Your task to perform on an android device: toggle notification dots Image 0: 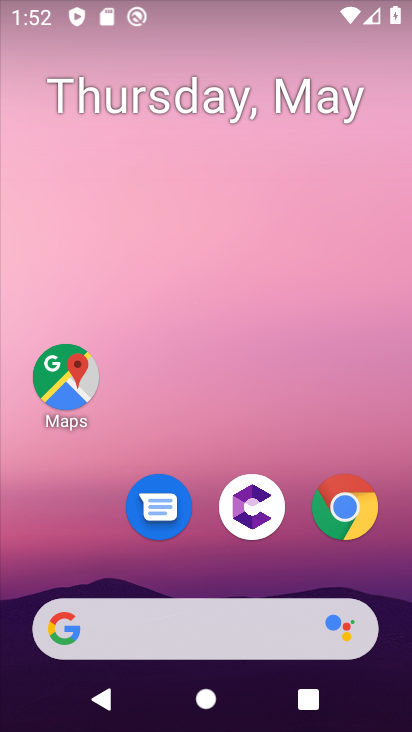
Step 0: press home button
Your task to perform on an android device: toggle notification dots Image 1: 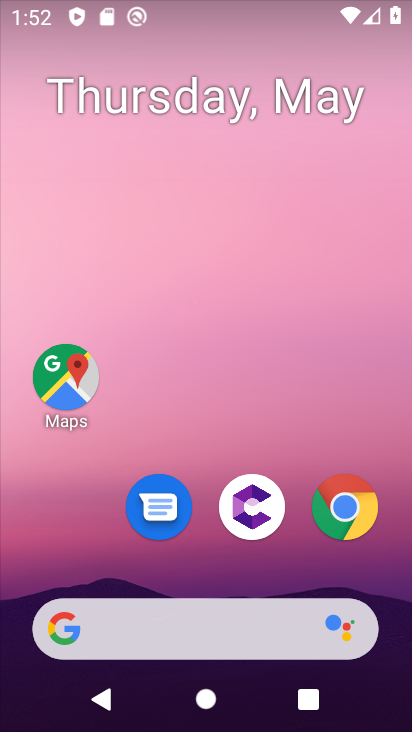
Step 1: drag from (301, 415) to (207, 20)
Your task to perform on an android device: toggle notification dots Image 2: 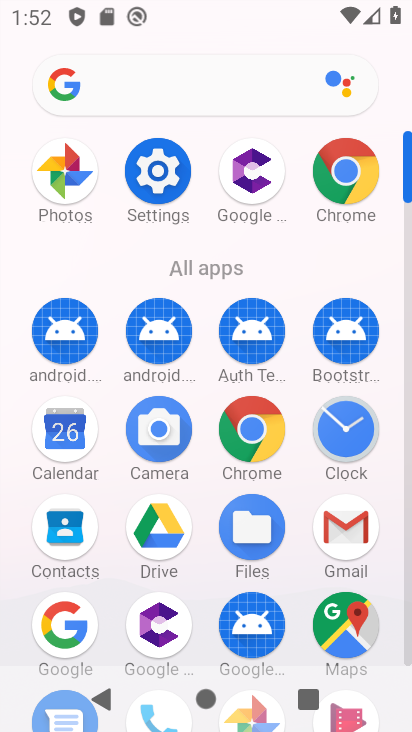
Step 2: click (163, 174)
Your task to perform on an android device: toggle notification dots Image 3: 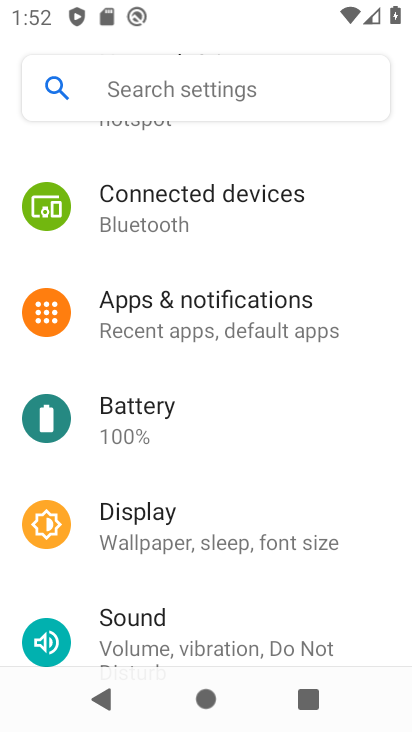
Step 3: click (181, 332)
Your task to perform on an android device: toggle notification dots Image 4: 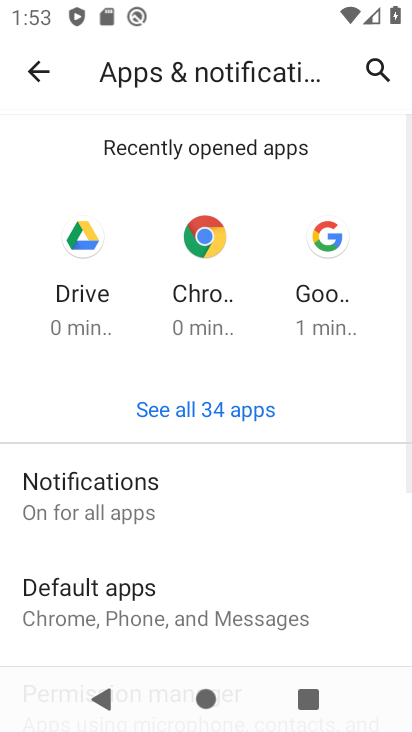
Step 4: drag from (324, 549) to (308, 133)
Your task to perform on an android device: toggle notification dots Image 5: 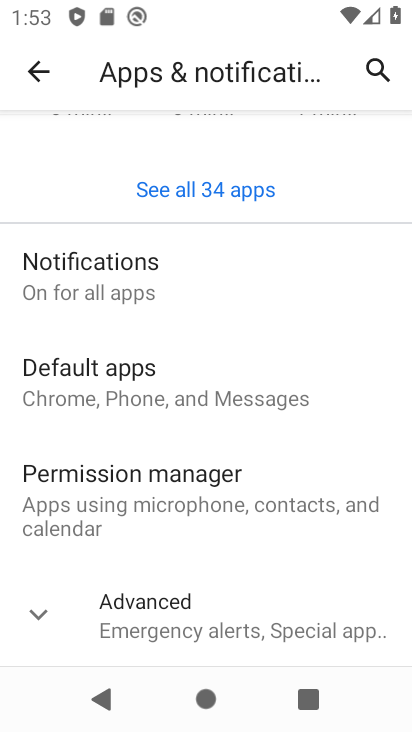
Step 5: click (76, 294)
Your task to perform on an android device: toggle notification dots Image 6: 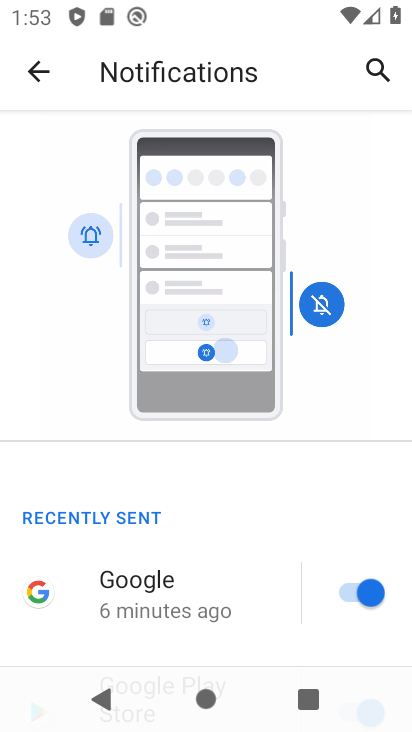
Step 6: drag from (245, 525) to (308, 96)
Your task to perform on an android device: toggle notification dots Image 7: 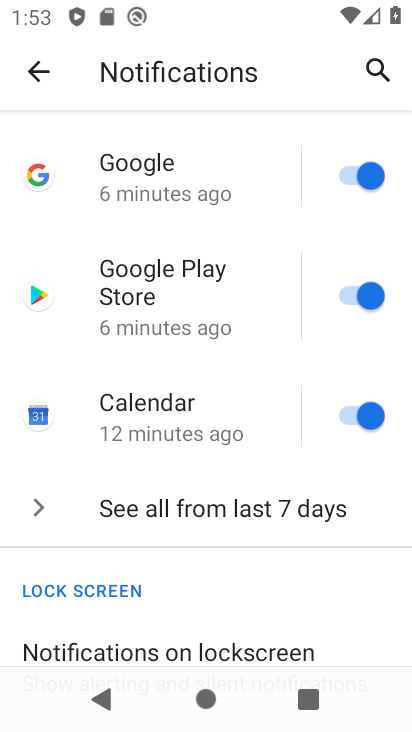
Step 7: drag from (273, 624) to (317, 239)
Your task to perform on an android device: toggle notification dots Image 8: 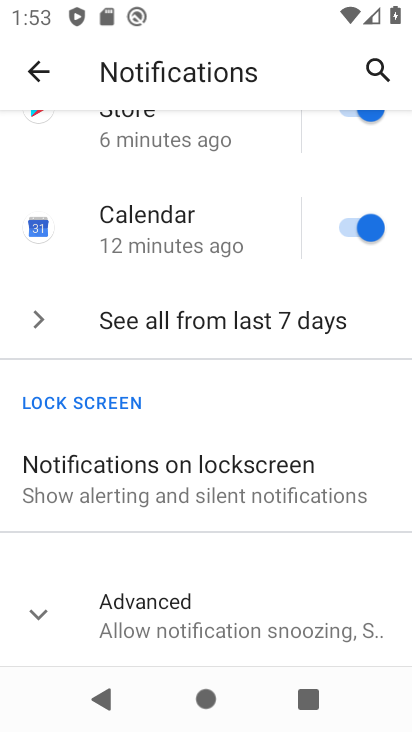
Step 8: click (44, 610)
Your task to perform on an android device: toggle notification dots Image 9: 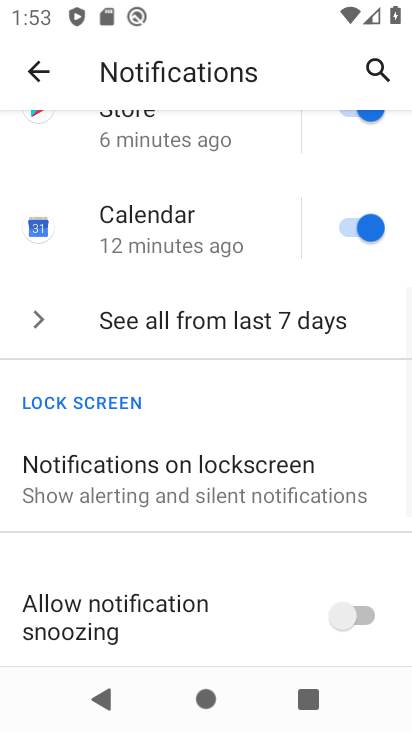
Step 9: drag from (174, 525) to (226, 179)
Your task to perform on an android device: toggle notification dots Image 10: 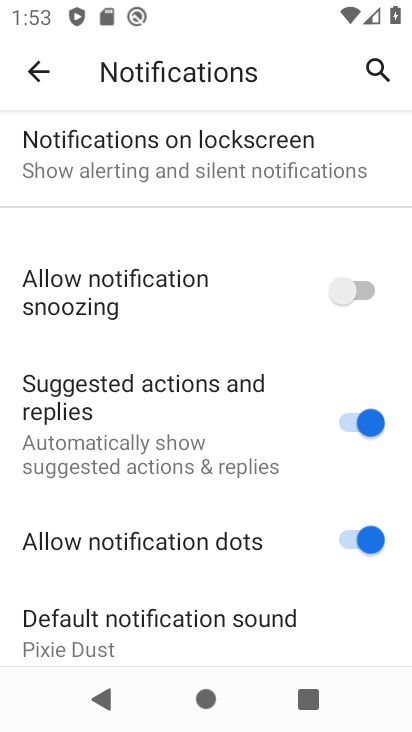
Step 10: click (357, 542)
Your task to perform on an android device: toggle notification dots Image 11: 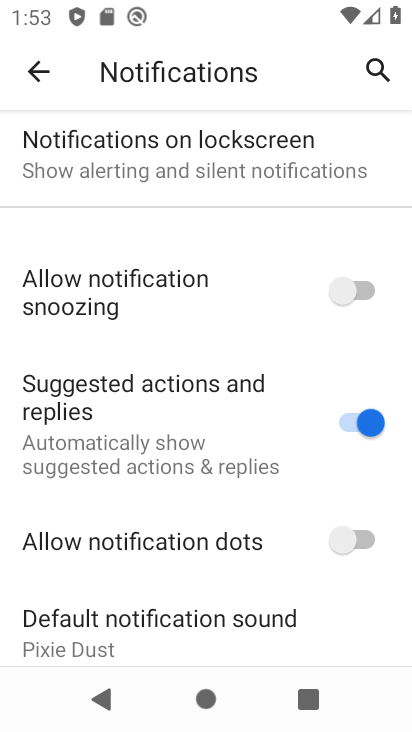
Step 11: task complete